Your task to perform on an android device: What's the weather? Image 0: 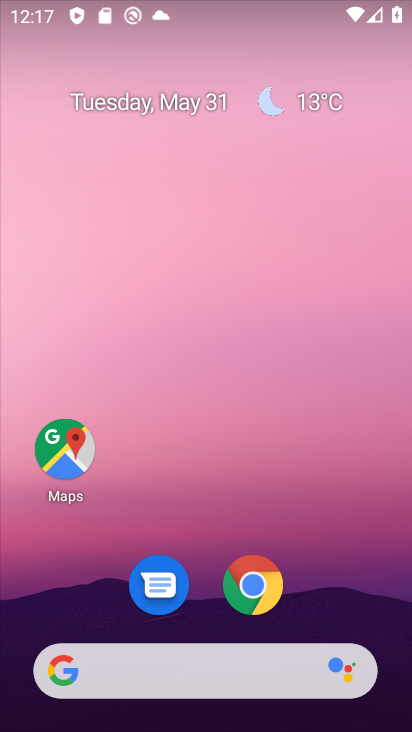
Step 0: click (138, 663)
Your task to perform on an android device: What's the weather? Image 1: 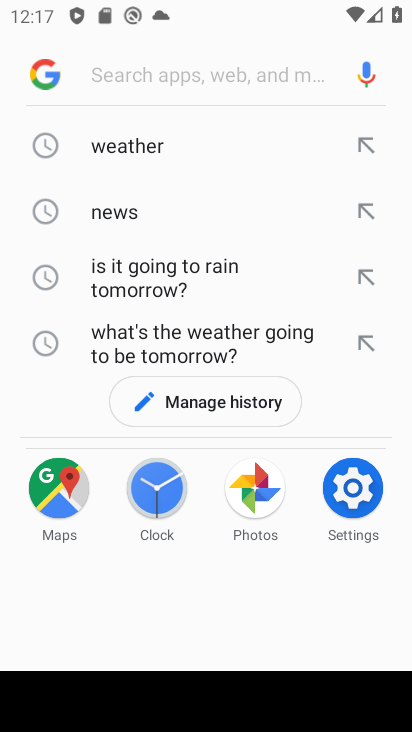
Step 1: click (147, 143)
Your task to perform on an android device: What's the weather? Image 2: 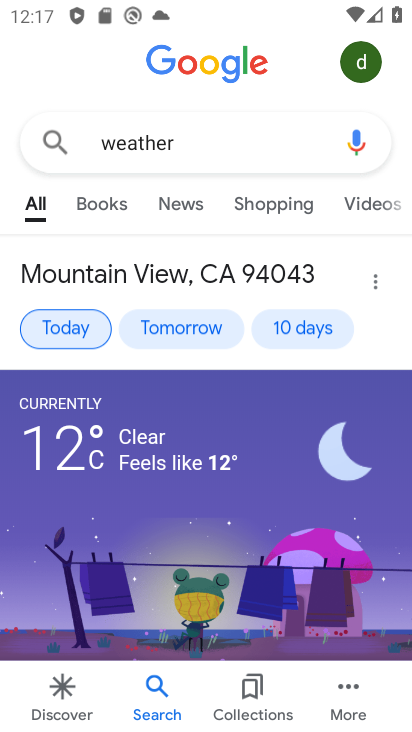
Step 2: click (89, 337)
Your task to perform on an android device: What's the weather? Image 3: 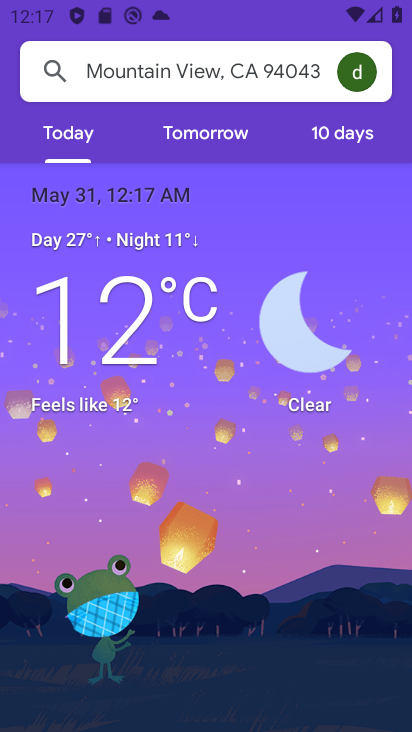
Step 3: task complete